Your task to perform on an android device: Open maps Image 0: 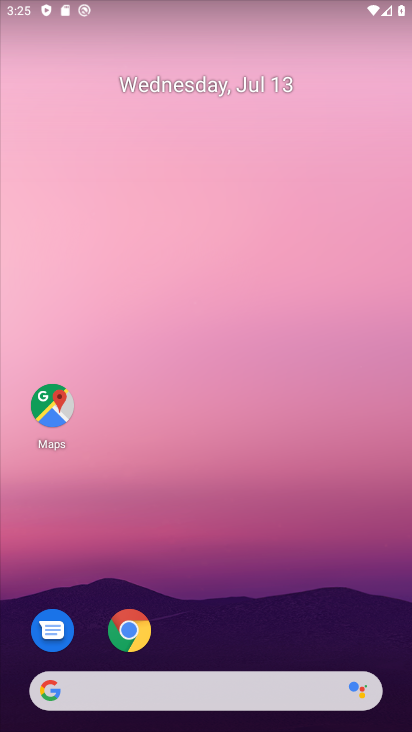
Step 0: click (48, 408)
Your task to perform on an android device: Open maps Image 1: 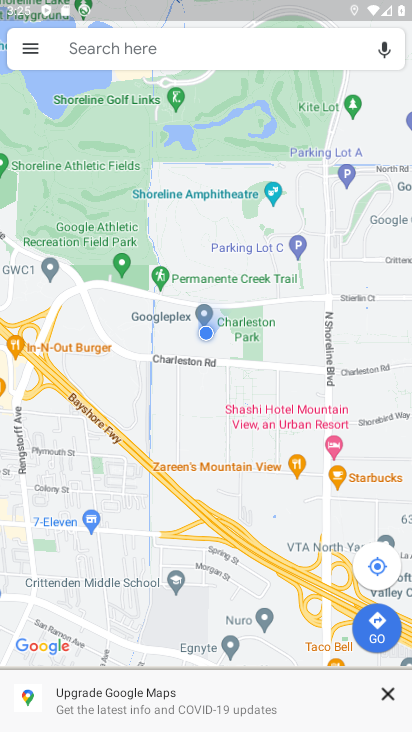
Step 1: task complete